Your task to perform on an android device: Open battery settings Image 0: 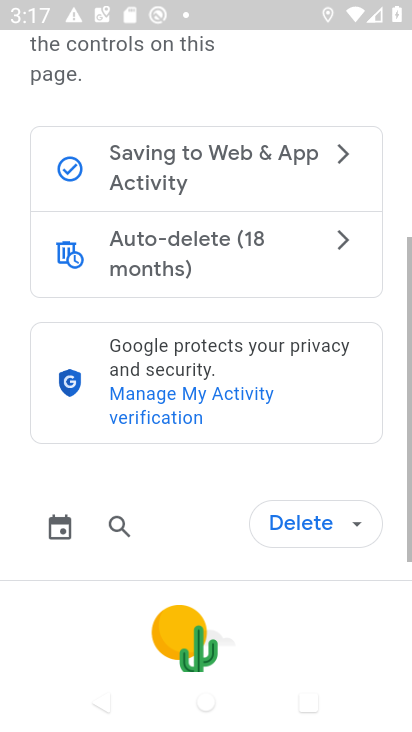
Step 0: drag from (325, 570) to (316, 521)
Your task to perform on an android device: Open battery settings Image 1: 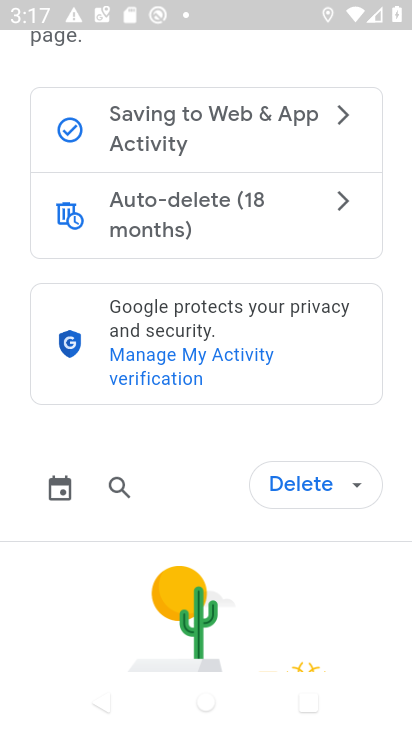
Step 1: press home button
Your task to perform on an android device: Open battery settings Image 2: 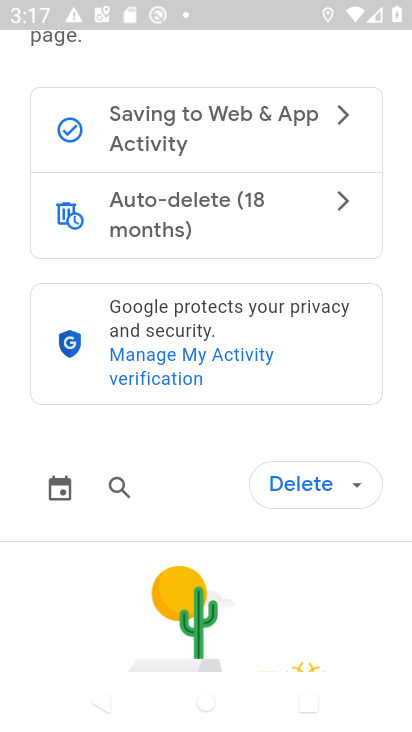
Step 2: press home button
Your task to perform on an android device: Open battery settings Image 3: 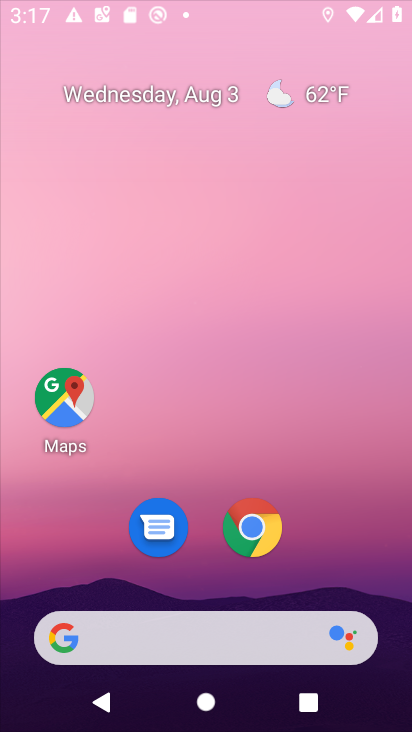
Step 3: press home button
Your task to perform on an android device: Open battery settings Image 4: 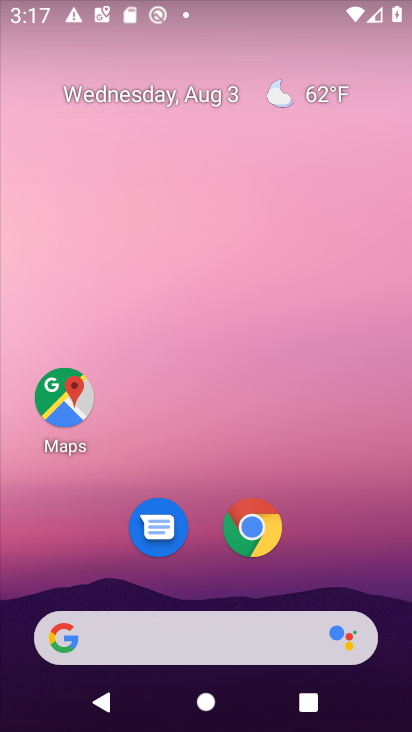
Step 4: drag from (338, 562) to (234, 82)
Your task to perform on an android device: Open battery settings Image 5: 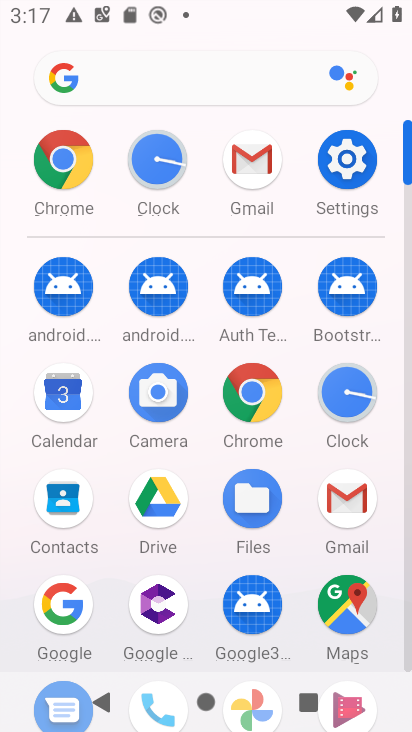
Step 5: click (328, 156)
Your task to perform on an android device: Open battery settings Image 6: 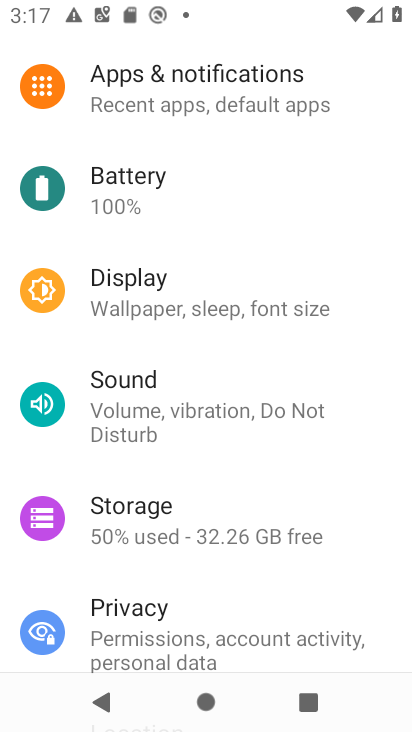
Step 6: click (157, 177)
Your task to perform on an android device: Open battery settings Image 7: 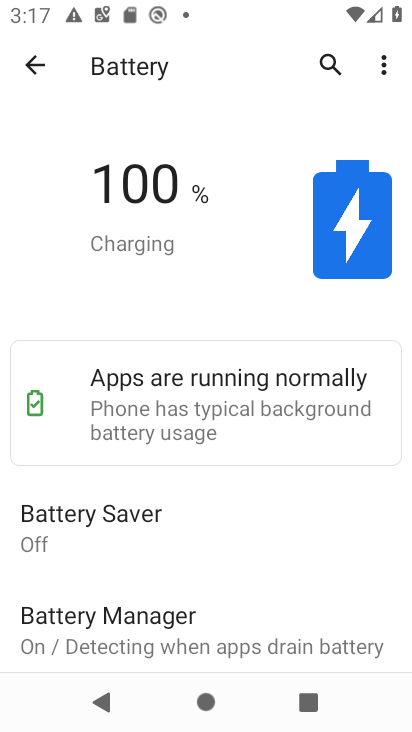
Step 7: task complete